Your task to perform on an android device: turn off airplane mode Image 0: 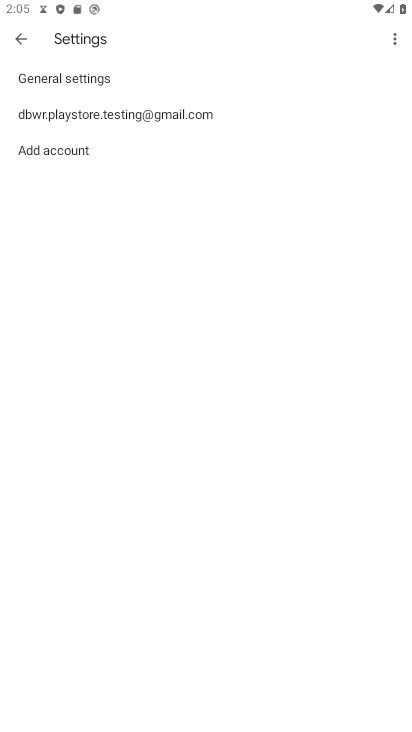
Step 0: drag from (273, 3) to (297, 460)
Your task to perform on an android device: turn off airplane mode Image 1: 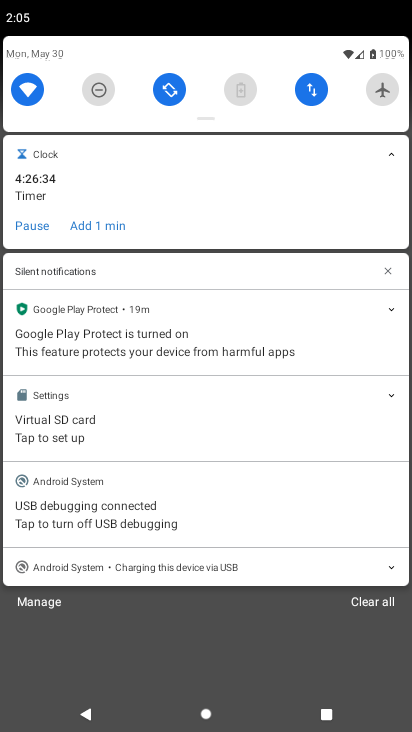
Step 1: click (380, 89)
Your task to perform on an android device: turn off airplane mode Image 2: 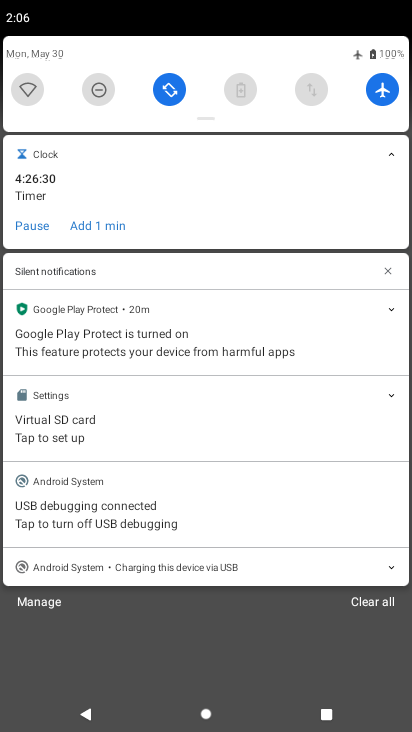
Step 2: task complete